Your task to perform on an android device: turn on translation in the chrome app Image 0: 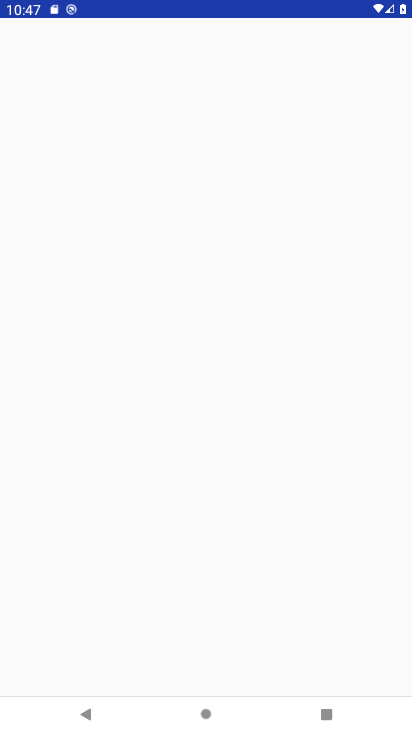
Step 0: drag from (219, 629) to (261, 183)
Your task to perform on an android device: turn on translation in the chrome app Image 1: 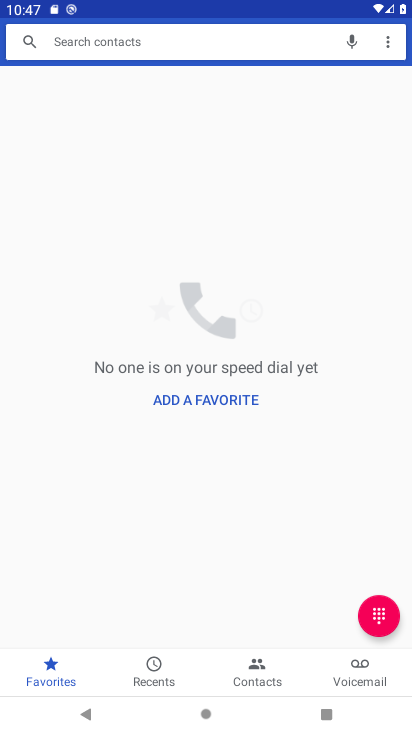
Step 1: press back button
Your task to perform on an android device: turn on translation in the chrome app Image 2: 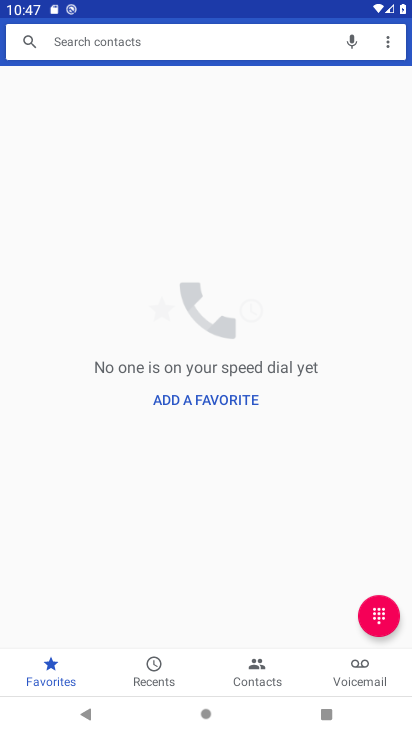
Step 2: press back button
Your task to perform on an android device: turn on translation in the chrome app Image 3: 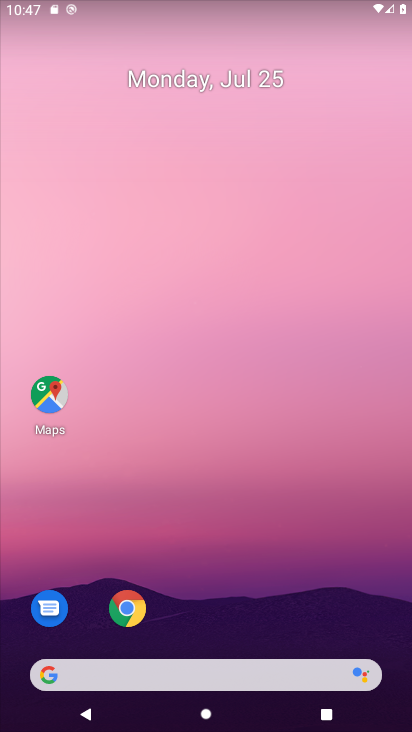
Step 3: drag from (242, 665) to (174, 173)
Your task to perform on an android device: turn on translation in the chrome app Image 4: 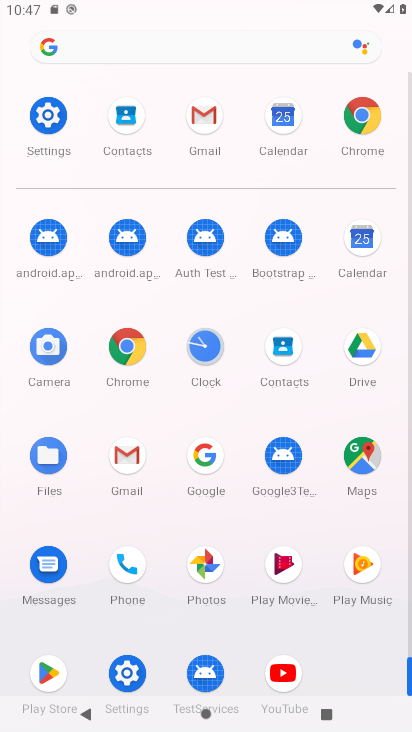
Step 4: click (47, 117)
Your task to perform on an android device: turn on translation in the chrome app Image 5: 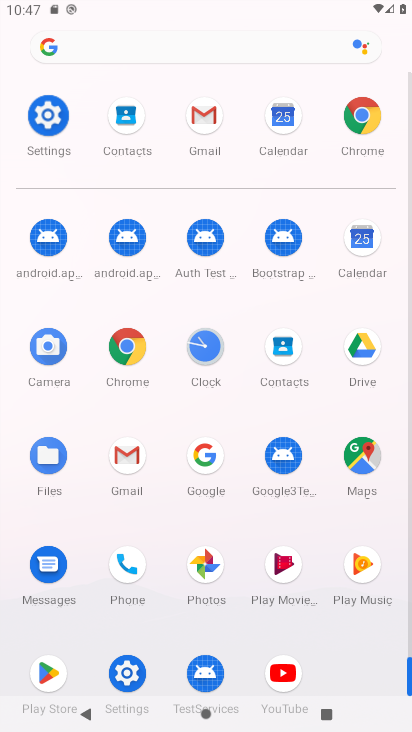
Step 5: click (46, 113)
Your task to perform on an android device: turn on translation in the chrome app Image 6: 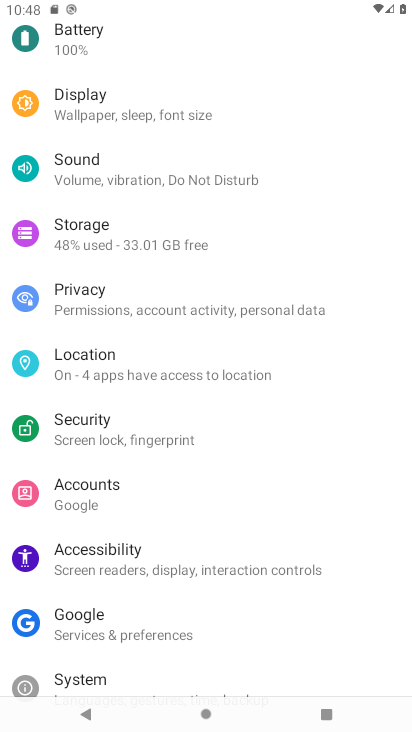
Step 6: drag from (162, 589) to (162, 12)
Your task to perform on an android device: turn on translation in the chrome app Image 7: 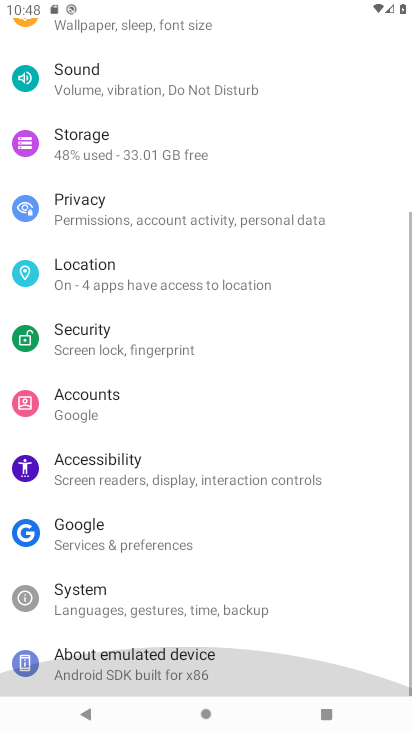
Step 7: drag from (201, 459) to (201, 6)
Your task to perform on an android device: turn on translation in the chrome app Image 8: 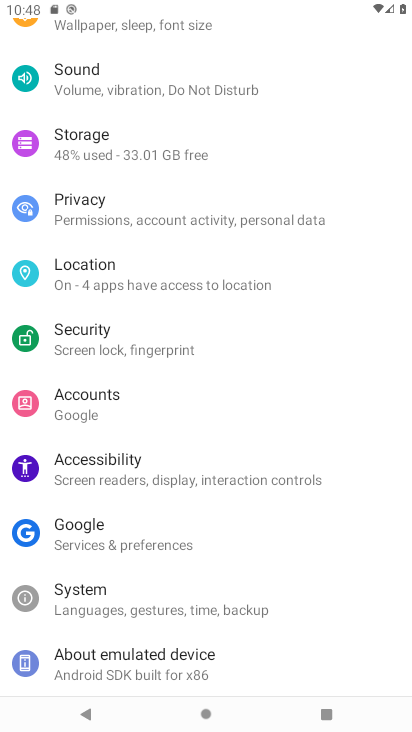
Step 8: drag from (170, 606) to (120, 285)
Your task to perform on an android device: turn on translation in the chrome app Image 9: 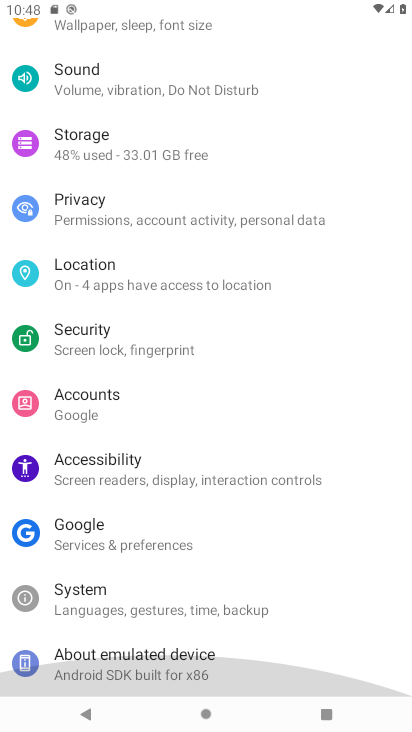
Step 9: drag from (120, 697) to (175, 169)
Your task to perform on an android device: turn on translation in the chrome app Image 10: 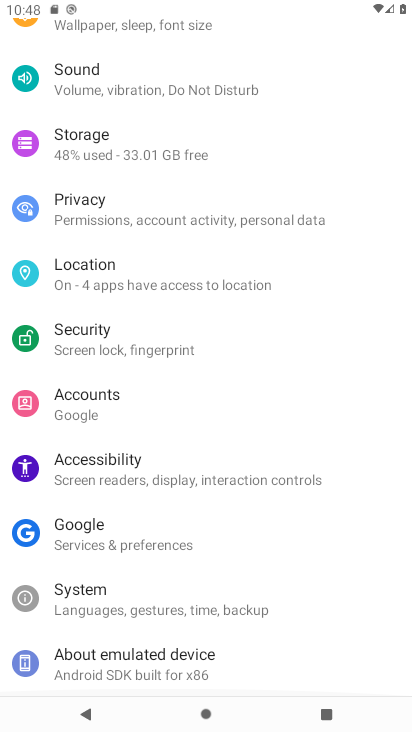
Step 10: drag from (205, 184) to (176, 627)
Your task to perform on an android device: turn on translation in the chrome app Image 11: 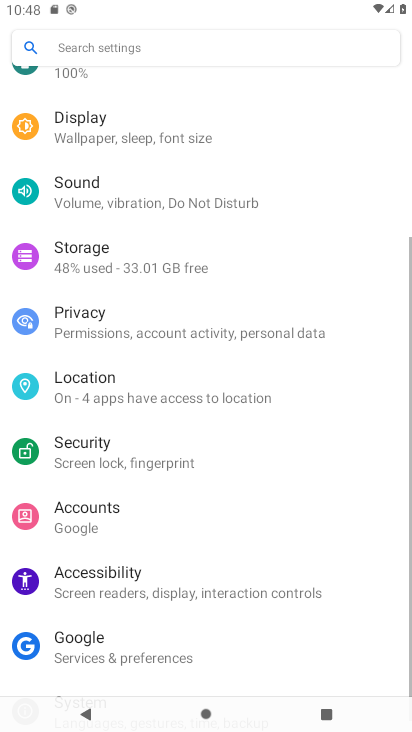
Step 11: drag from (122, 324) to (119, 527)
Your task to perform on an android device: turn on translation in the chrome app Image 12: 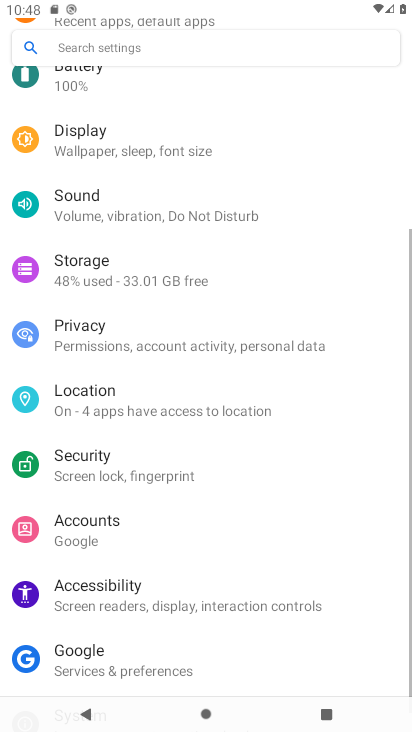
Step 12: drag from (108, 337) to (141, 569)
Your task to perform on an android device: turn on translation in the chrome app Image 13: 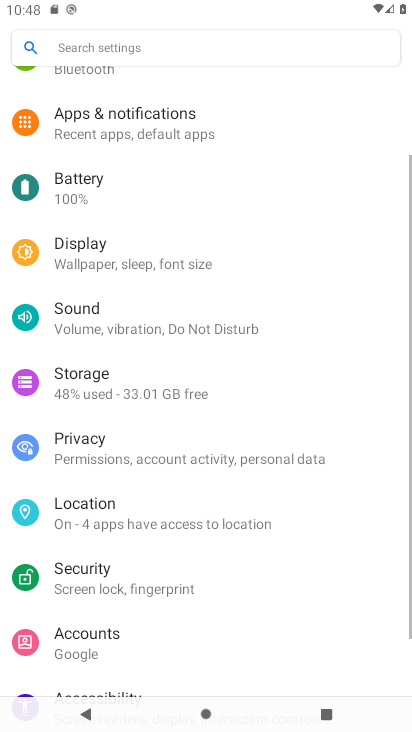
Step 13: drag from (120, 319) to (168, 543)
Your task to perform on an android device: turn on translation in the chrome app Image 14: 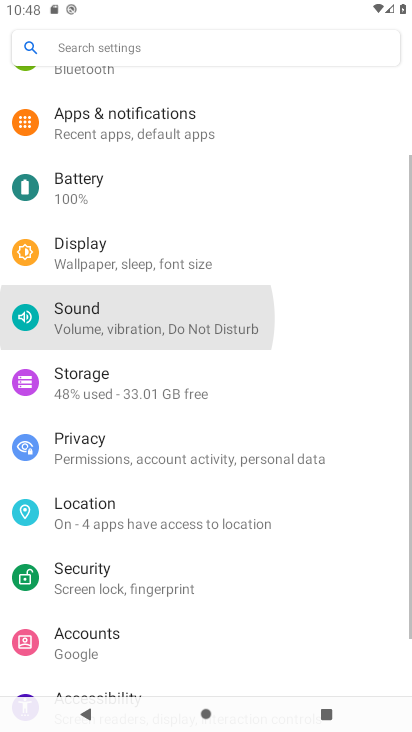
Step 14: drag from (117, 124) to (147, 537)
Your task to perform on an android device: turn on translation in the chrome app Image 15: 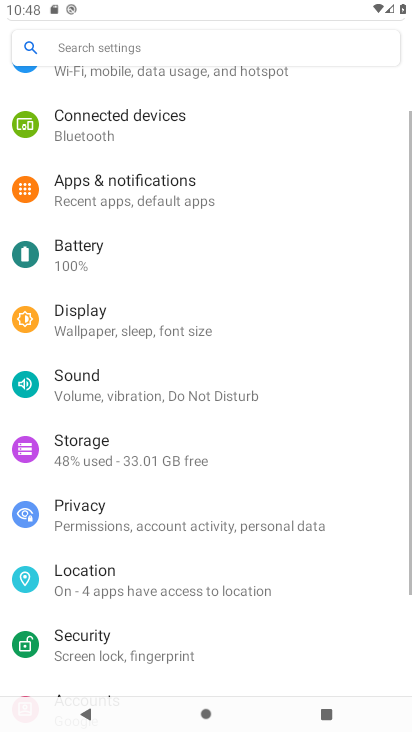
Step 15: drag from (113, 145) to (206, 515)
Your task to perform on an android device: turn on translation in the chrome app Image 16: 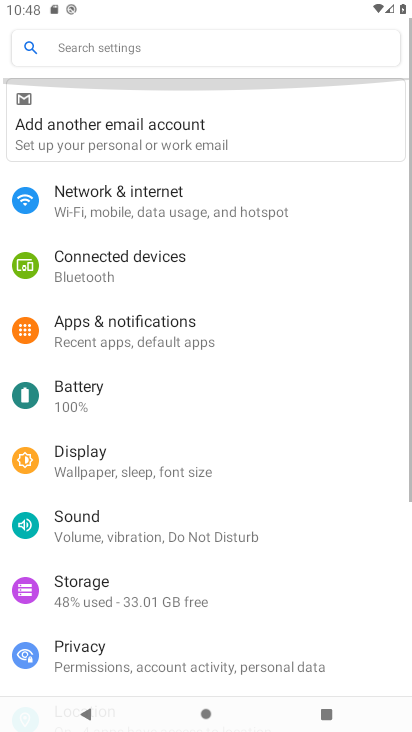
Step 16: drag from (221, 168) to (186, 634)
Your task to perform on an android device: turn on translation in the chrome app Image 17: 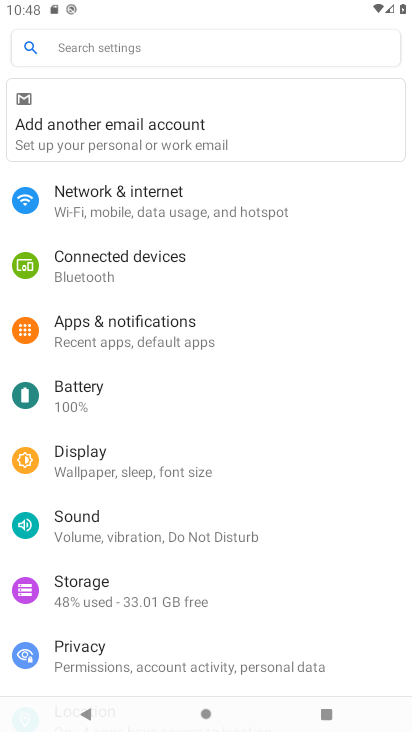
Step 17: press back button
Your task to perform on an android device: turn on translation in the chrome app Image 18: 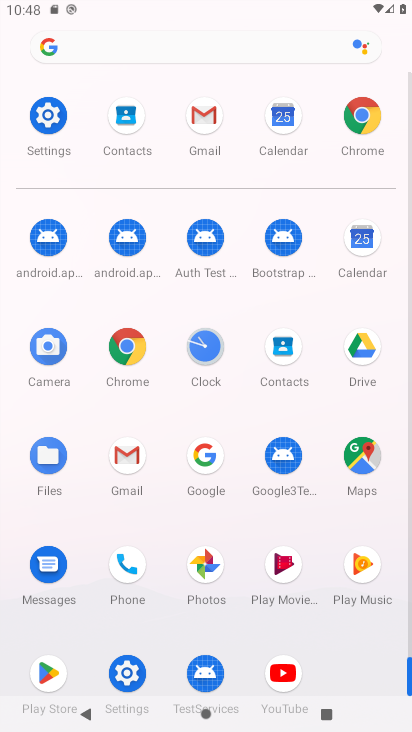
Step 18: click (42, 114)
Your task to perform on an android device: turn on translation in the chrome app Image 19: 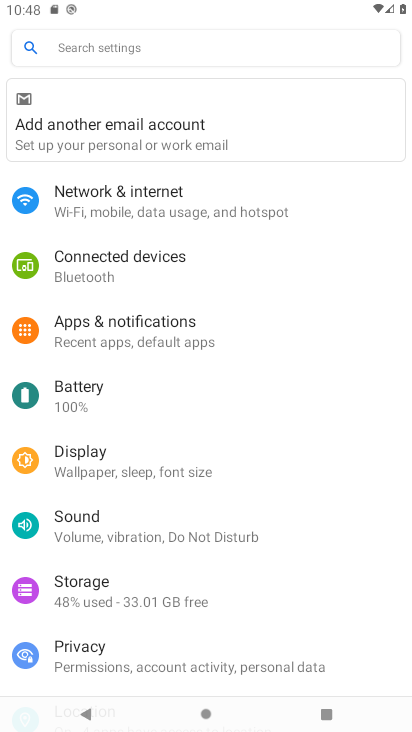
Step 19: drag from (79, 533) to (85, 152)
Your task to perform on an android device: turn on translation in the chrome app Image 20: 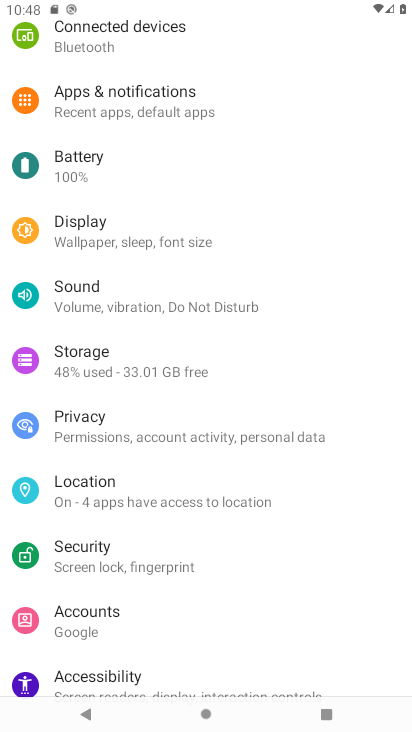
Step 20: drag from (132, 416) to (157, 73)
Your task to perform on an android device: turn on translation in the chrome app Image 21: 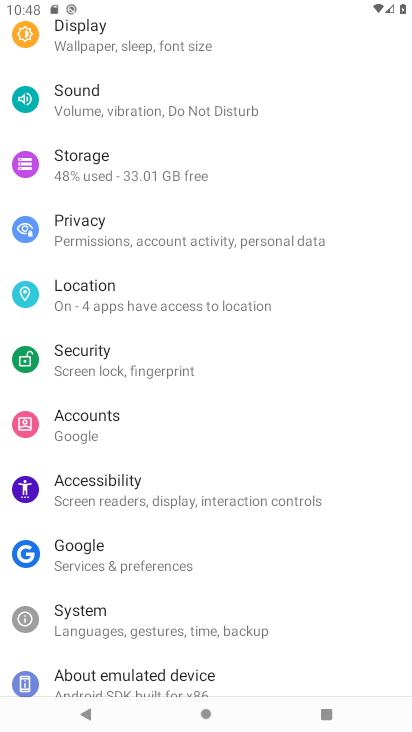
Step 21: drag from (196, 602) to (189, 133)
Your task to perform on an android device: turn on translation in the chrome app Image 22: 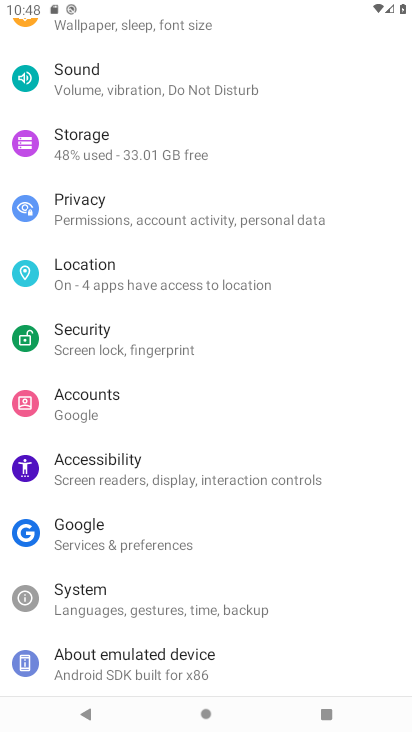
Step 22: click (93, 284)
Your task to perform on an android device: turn on translation in the chrome app Image 23: 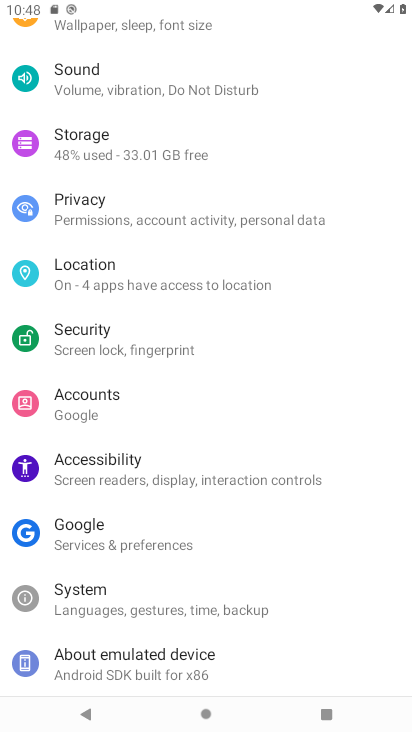
Step 23: click (103, 280)
Your task to perform on an android device: turn on translation in the chrome app Image 24: 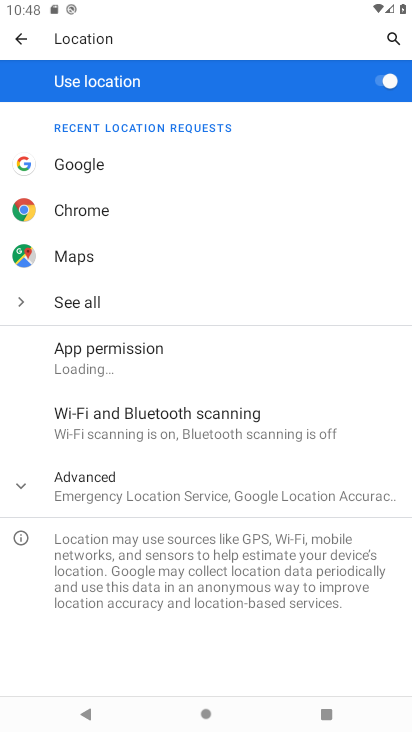
Step 24: click (73, 478)
Your task to perform on an android device: turn on translation in the chrome app Image 25: 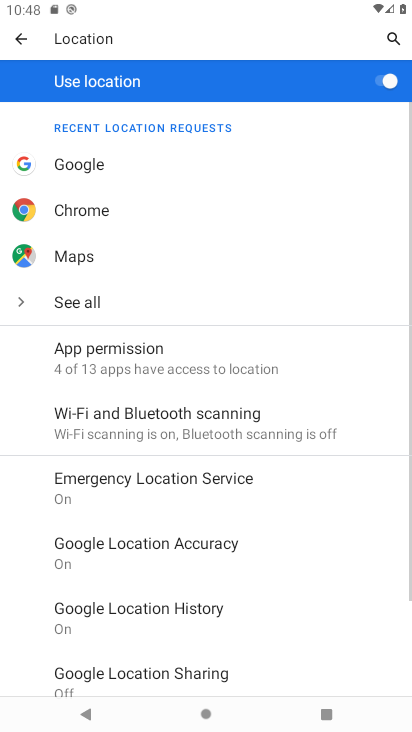
Step 25: click (11, 42)
Your task to perform on an android device: turn on translation in the chrome app Image 26: 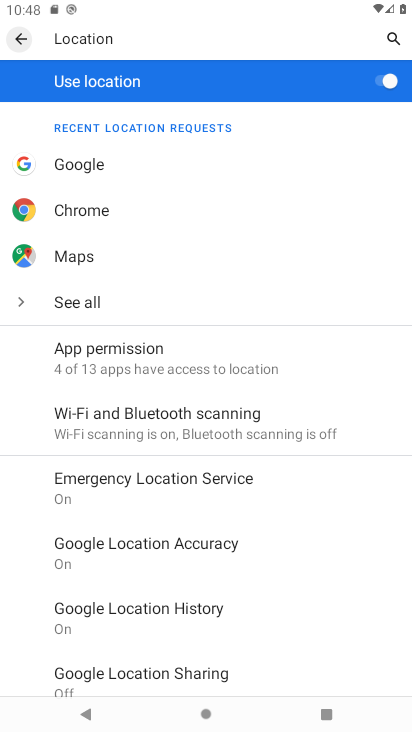
Step 26: click (11, 42)
Your task to perform on an android device: turn on translation in the chrome app Image 27: 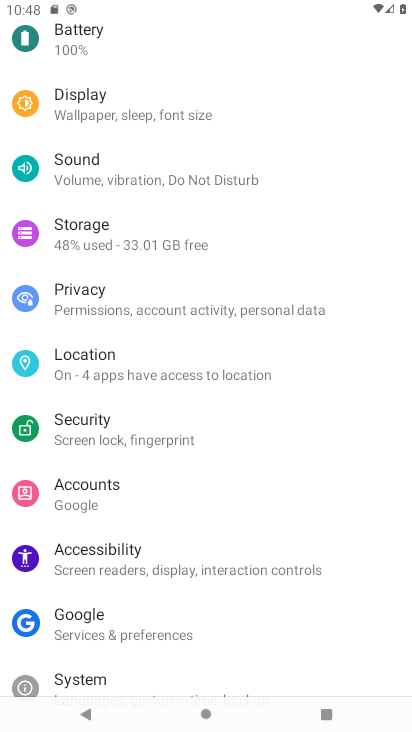
Step 27: press back button
Your task to perform on an android device: turn on translation in the chrome app Image 28: 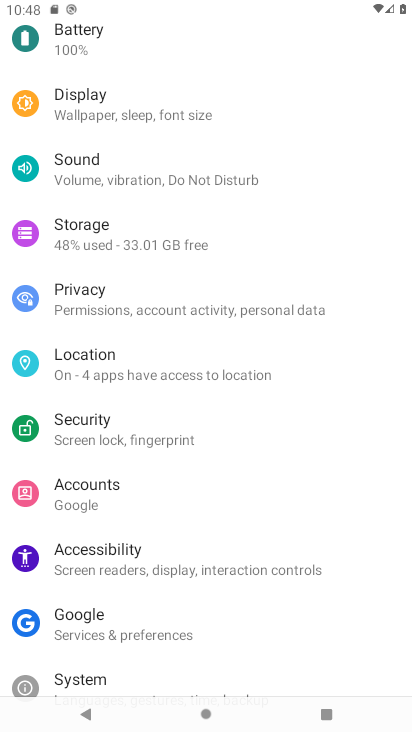
Step 28: press back button
Your task to perform on an android device: turn on translation in the chrome app Image 29: 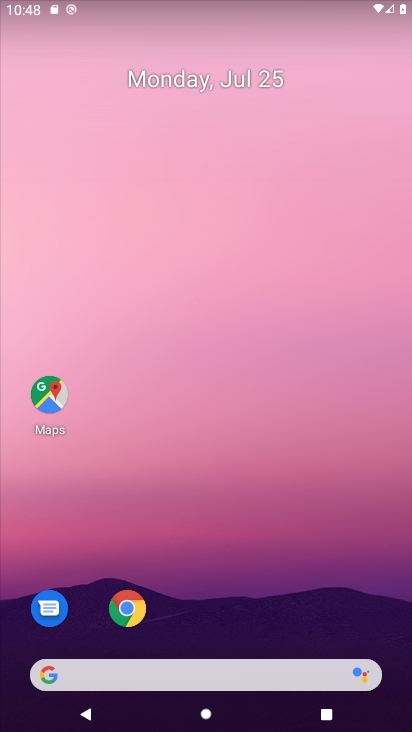
Step 29: drag from (206, 608) to (212, 222)
Your task to perform on an android device: turn on translation in the chrome app Image 30: 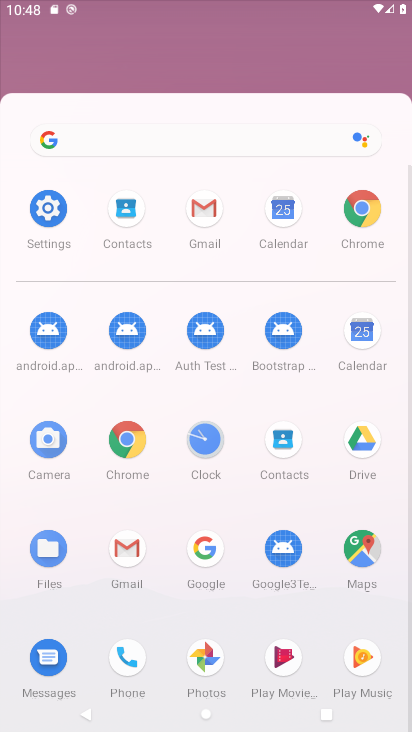
Step 30: drag from (267, 368) to (239, 163)
Your task to perform on an android device: turn on translation in the chrome app Image 31: 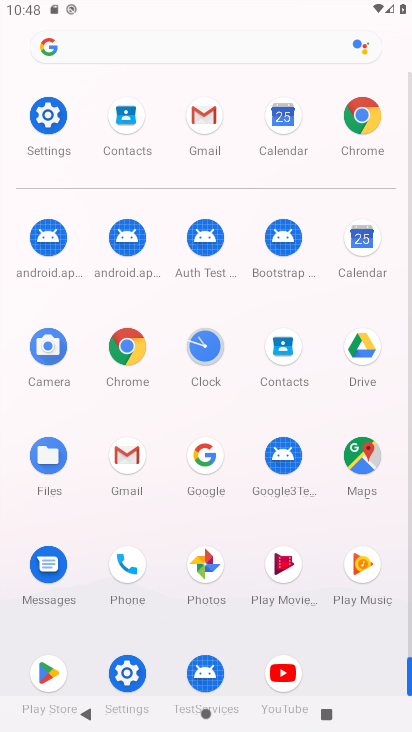
Step 31: drag from (292, 347) to (295, 7)
Your task to perform on an android device: turn on translation in the chrome app Image 32: 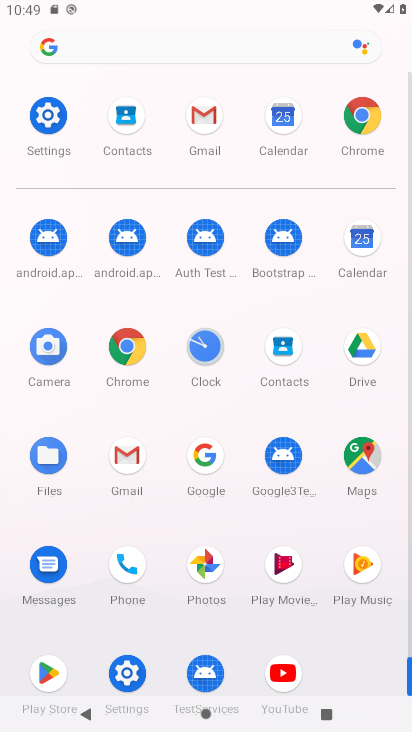
Step 32: click (362, 115)
Your task to perform on an android device: turn on translation in the chrome app Image 33: 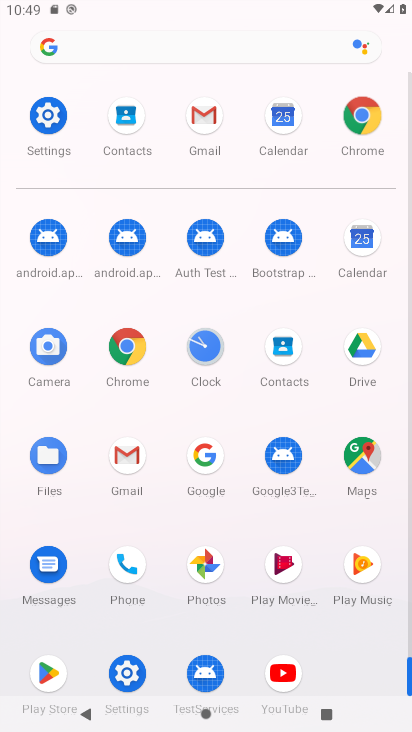
Step 33: click (361, 114)
Your task to perform on an android device: turn on translation in the chrome app Image 34: 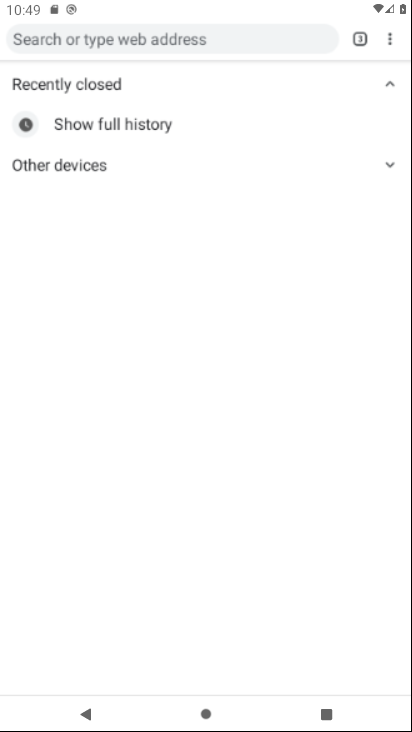
Step 34: click (359, 108)
Your task to perform on an android device: turn on translation in the chrome app Image 35: 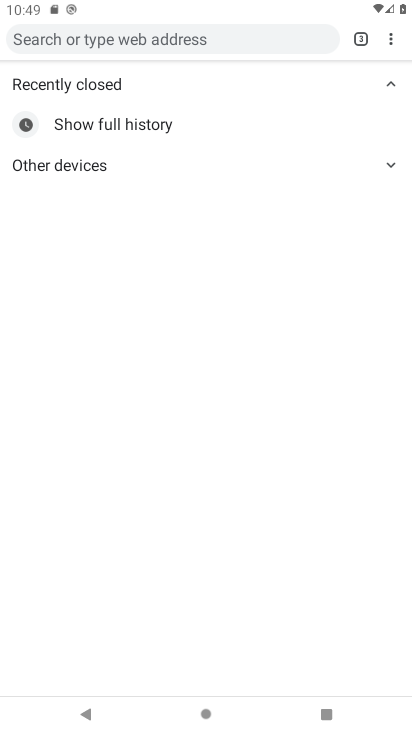
Step 35: click (392, 43)
Your task to perform on an android device: turn on translation in the chrome app Image 36: 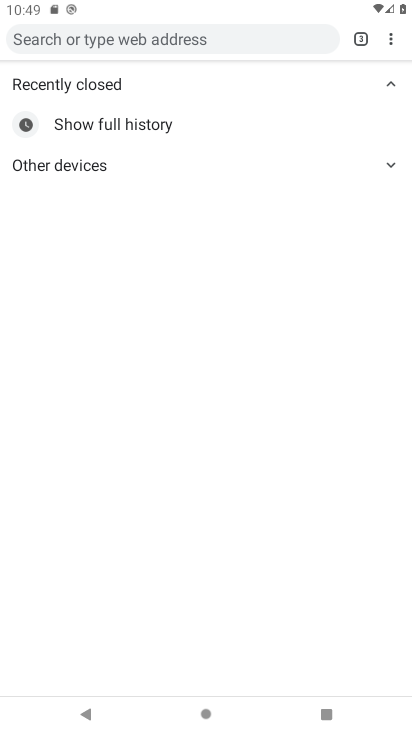
Step 36: drag from (389, 46) to (250, 324)
Your task to perform on an android device: turn on translation in the chrome app Image 37: 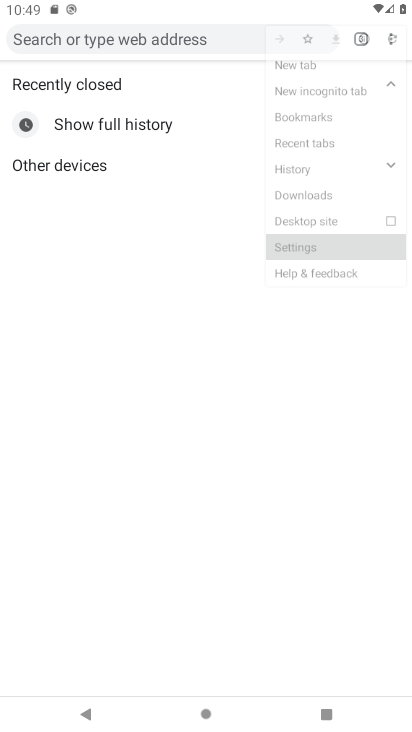
Step 37: click (261, 323)
Your task to perform on an android device: turn on translation in the chrome app Image 38: 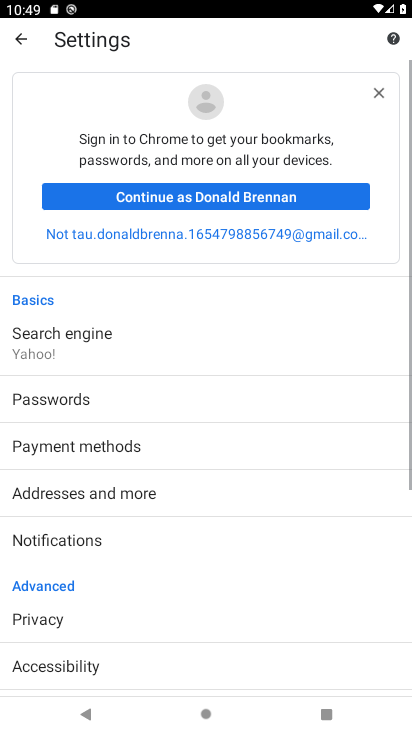
Step 38: drag from (84, 485) to (118, 74)
Your task to perform on an android device: turn on translation in the chrome app Image 39: 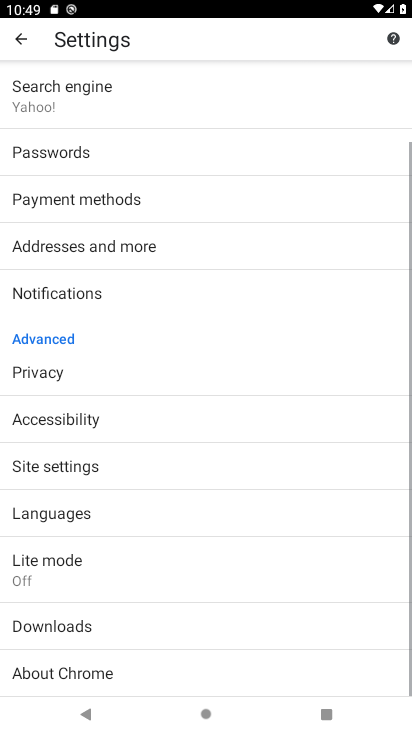
Step 39: drag from (55, 488) to (58, 75)
Your task to perform on an android device: turn on translation in the chrome app Image 40: 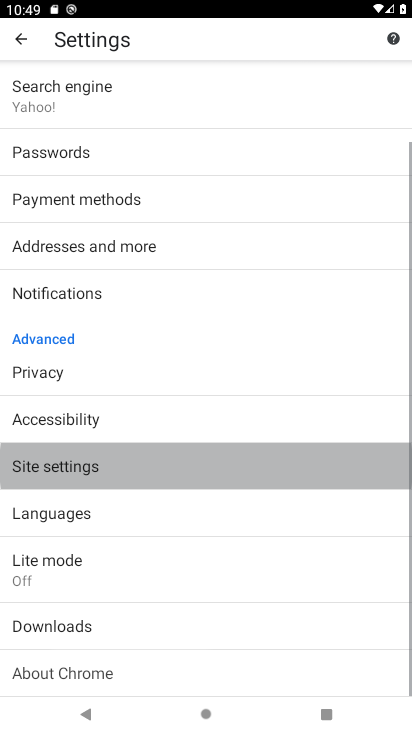
Step 40: drag from (137, 493) to (196, 181)
Your task to perform on an android device: turn on translation in the chrome app Image 41: 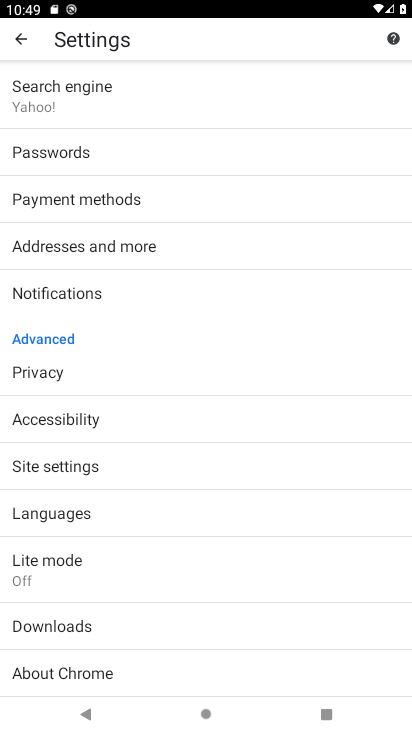
Step 41: click (41, 470)
Your task to perform on an android device: turn on translation in the chrome app Image 42: 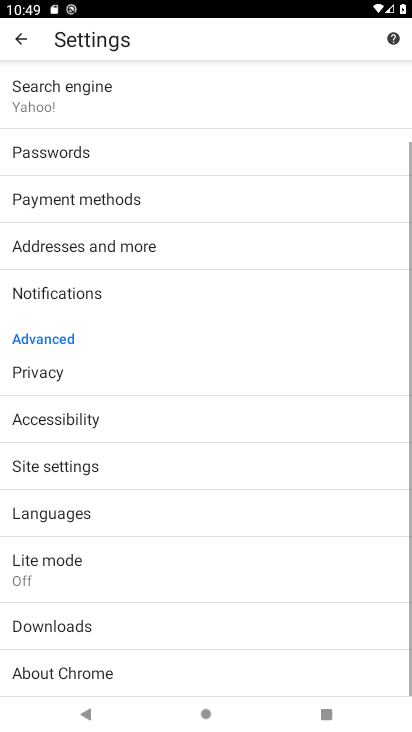
Step 42: click (35, 464)
Your task to perform on an android device: turn on translation in the chrome app Image 43: 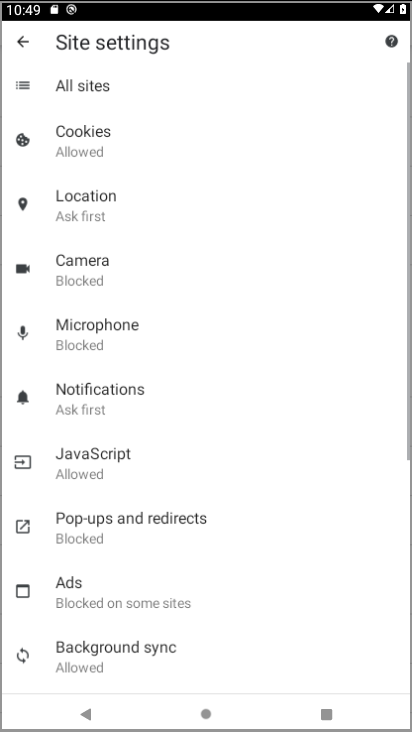
Step 43: click (37, 470)
Your task to perform on an android device: turn on translation in the chrome app Image 44: 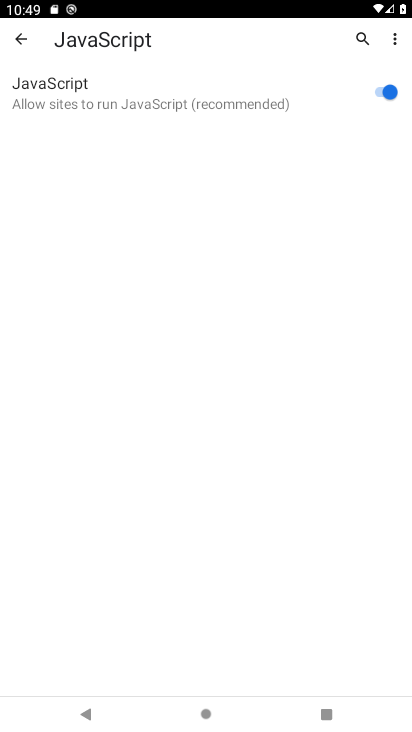
Step 44: click (17, 33)
Your task to perform on an android device: turn on translation in the chrome app Image 45: 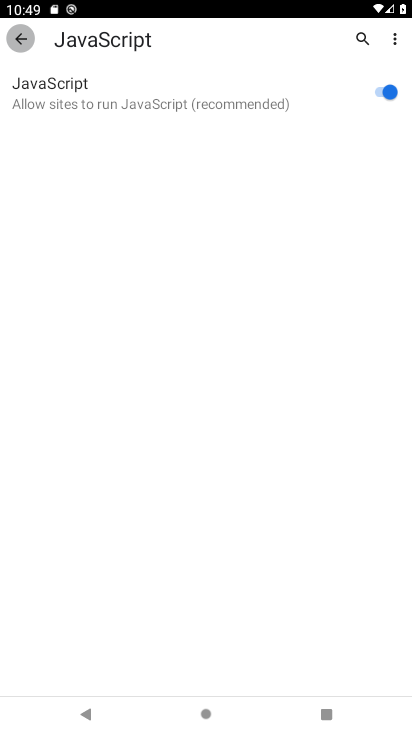
Step 45: click (17, 30)
Your task to perform on an android device: turn on translation in the chrome app Image 46: 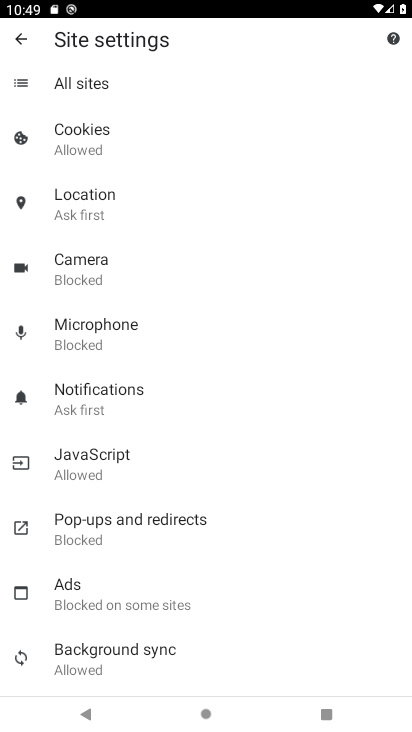
Step 46: click (73, 190)
Your task to perform on an android device: turn on translation in the chrome app Image 47: 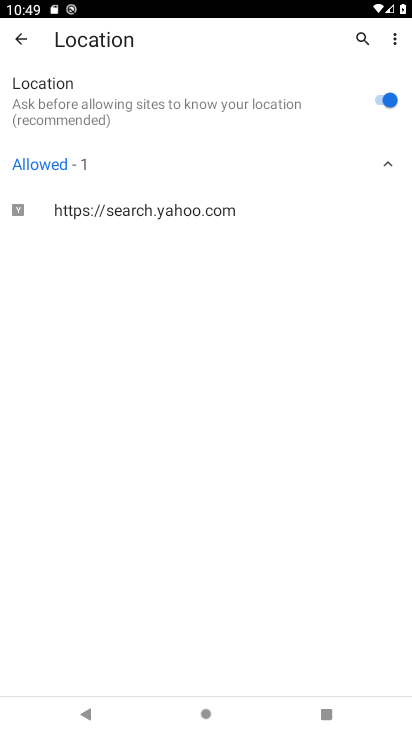
Step 47: click (384, 100)
Your task to perform on an android device: turn on translation in the chrome app Image 48: 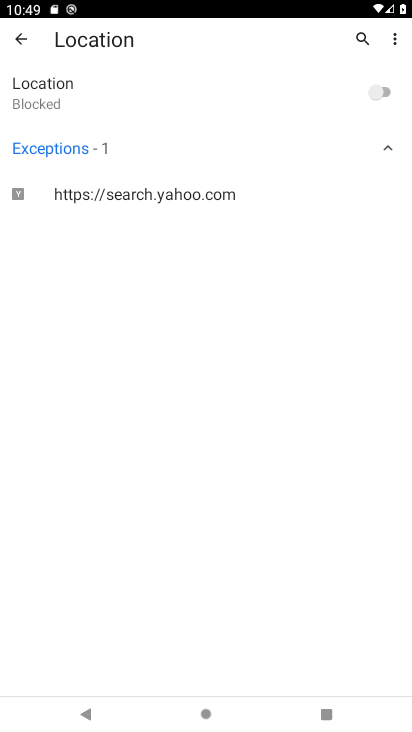
Step 48: task complete